Your task to perform on an android device: toggle notification dots Image 0: 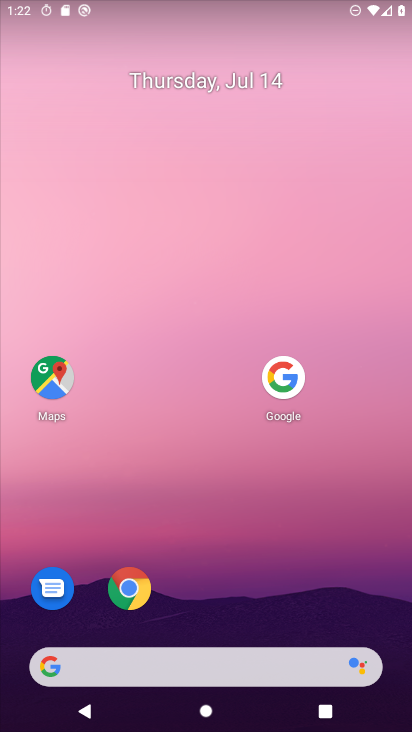
Step 0: drag from (222, 663) to (353, 69)
Your task to perform on an android device: toggle notification dots Image 1: 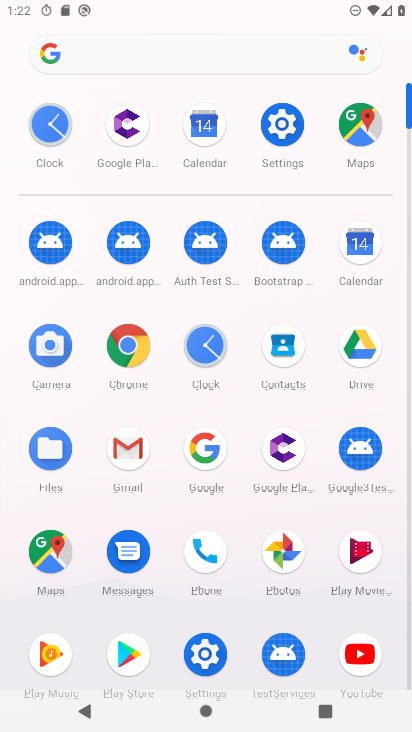
Step 1: click (280, 131)
Your task to perform on an android device: toggle notification dots Image 2: 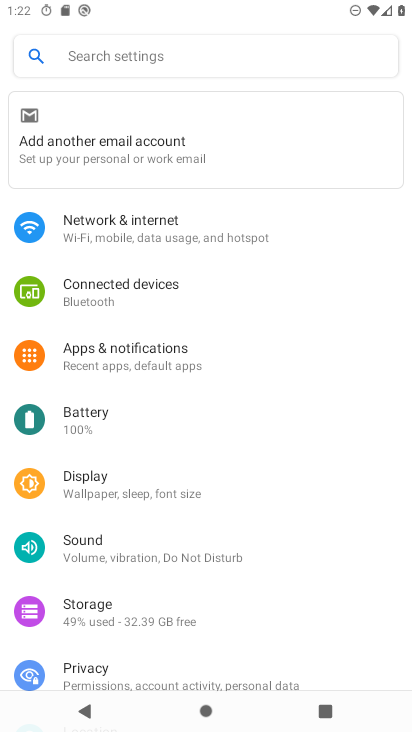
Step 2: click (175, 365)
Your task to perform on an android device: toggle notification dots Image 3: 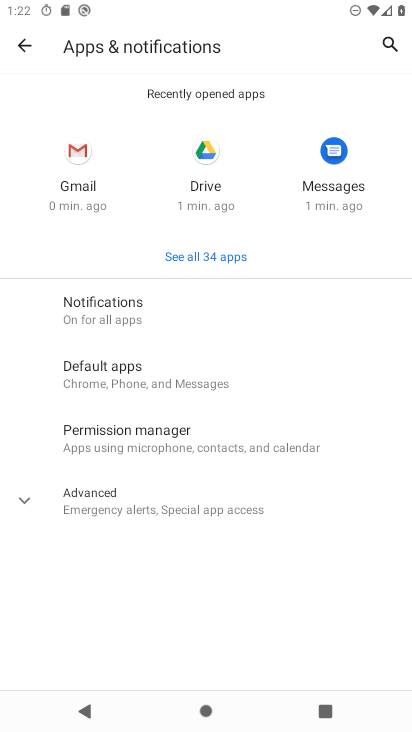
Step 3: click (97, 316)
Your task to perform on an android device: toggle notification dots Image 4: 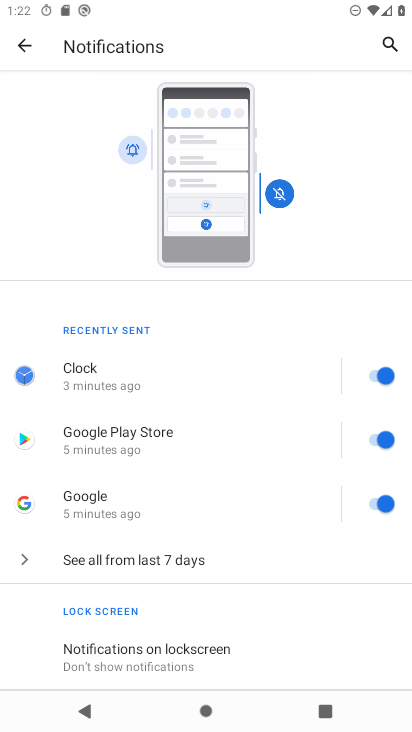
Step 4: drag from (260, 654) to (332, 251)
Your task to perform on an android device: toggle notification dots Image 5: 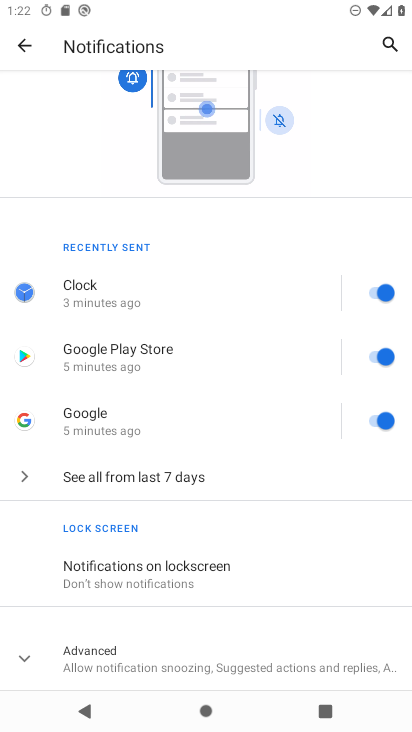
Step 5: click (170, 653)
Your task to perform on an android device: toggle notification dots Image 6: 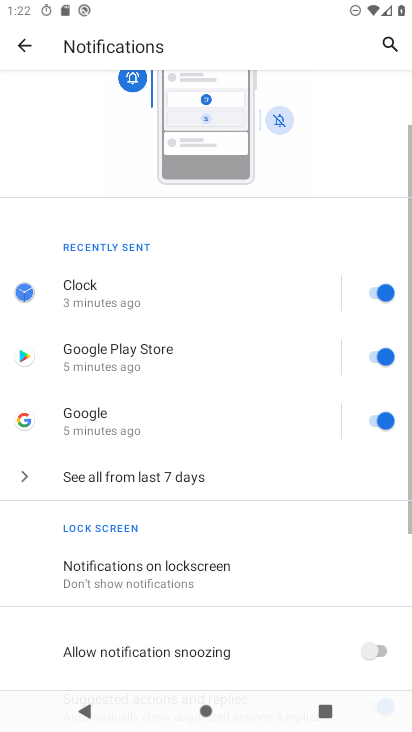
Step 6: drag from (187, 602) to (219, 216)
Your task to perform on an android device: toggle notification dots Image 7: 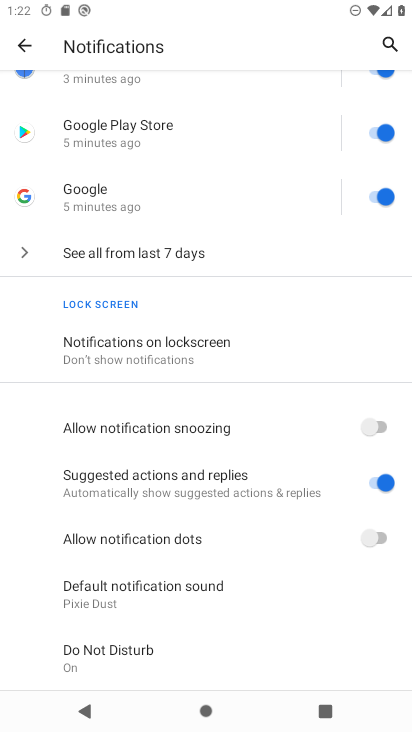
Step 7: click (381, 537)
Your task to perform on an android device: toggle notification dots Image 8: 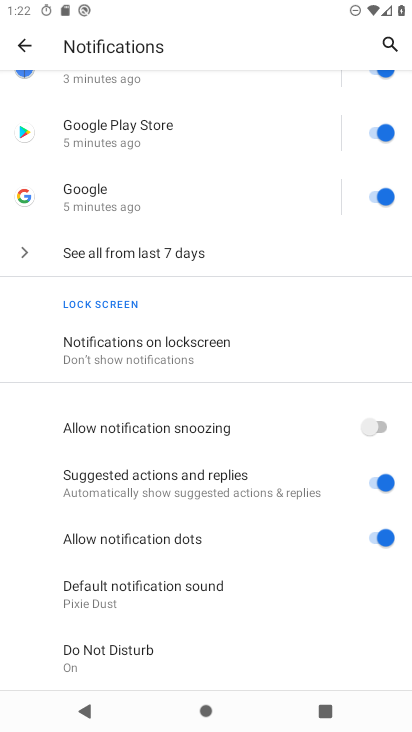
Step 8: task complete